Your task to perform on an android device: Check the weather Image 0: 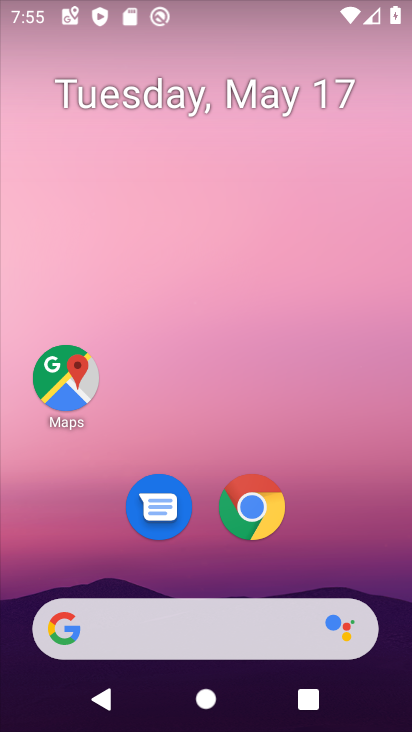
Step 0: drag from (246, 691) to (201, 116)
Your task to perform on an android device: Check the weather Image 1: 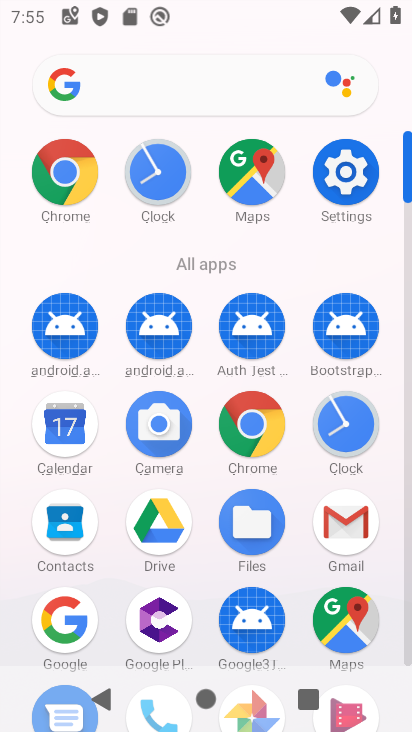
Step 1: press back button
Your task to perform on an android device: Check the weather Image 2: 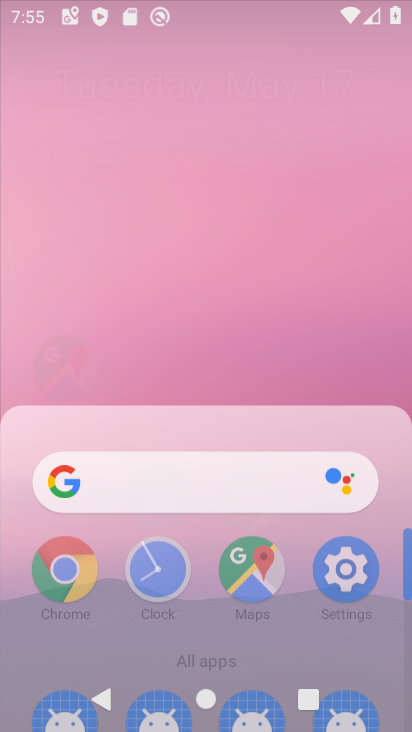
Step 2: press back button
Your task to perform on an android device: Check the weather Image 3: 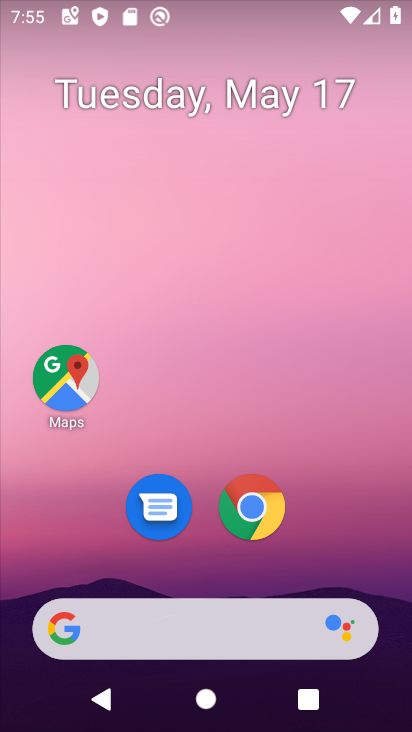
Step 3: drag from (0, 180) to (383, 367)
Your task to perform on an android device: Check the weather Image 4: 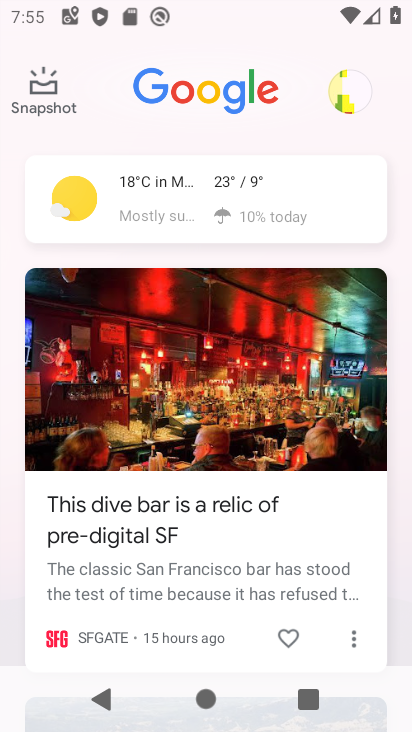
Step 4: click (177, 194)
Your task to perform on an android device: Check the weather Image 5: 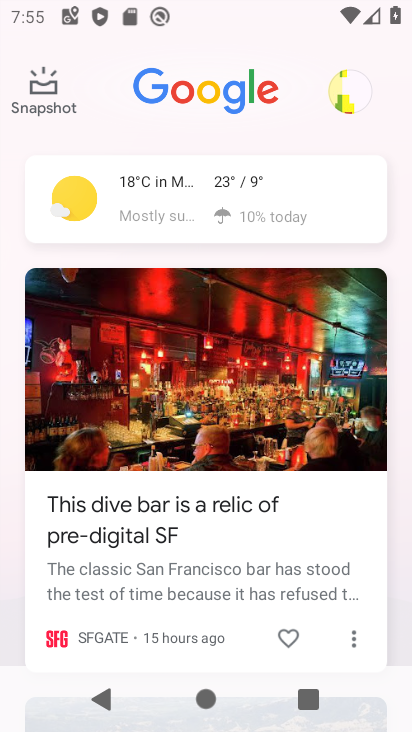
Step 5: click (177, 194)
Your task to perform on an android device: Check the weather Image 6: 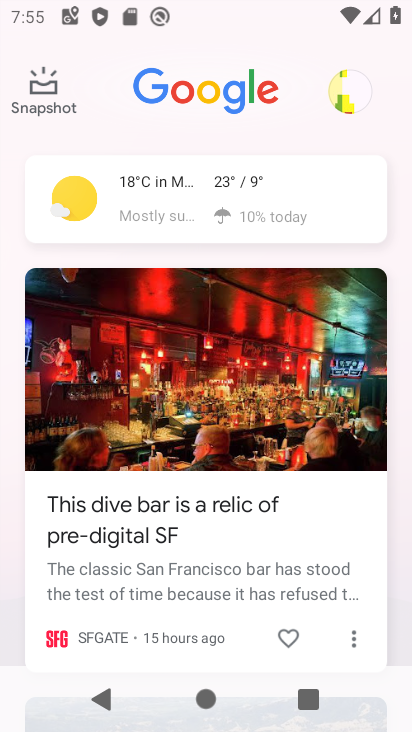
Step 6: click (177, 194)
Your task to perform on an android device: Check the weather Image 7: 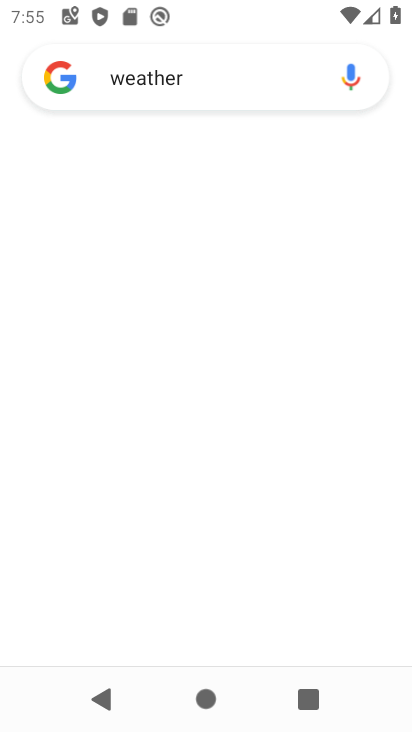
Step 7: click (177, 194)
Your task to perform on an android device: Check the weather Image 8: 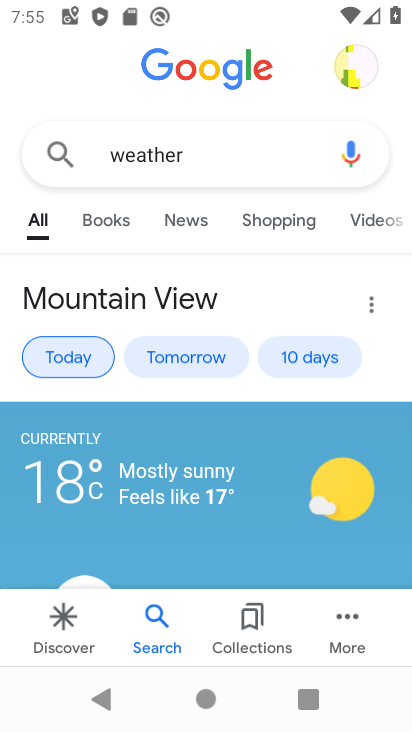
Step 8: task complete